Your task to perform on an android device: clear history in the chrome app Image 0: 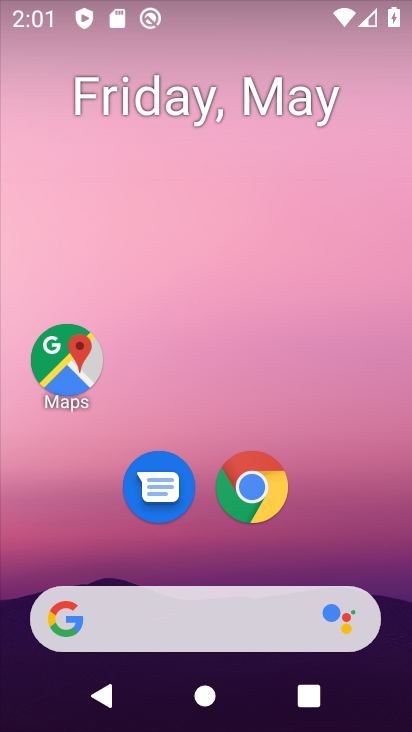
Step 0: click (256, 486)
Your task to perform on an android device: clear history in the chrome app Image 1: 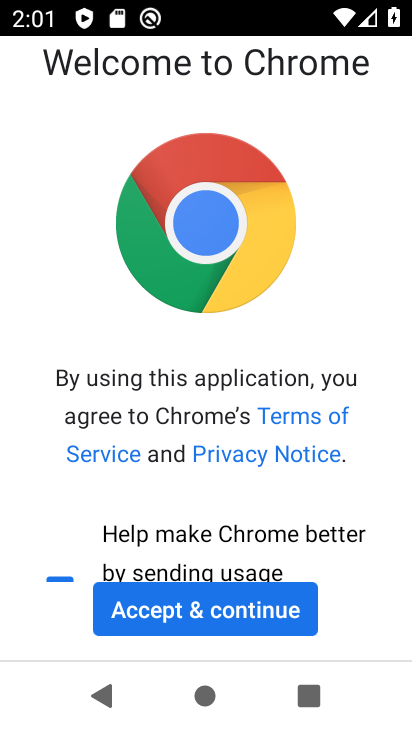
Step 1: click (183, 612)
Your task to perform on an android device: clear history in the chrome app Image 2: 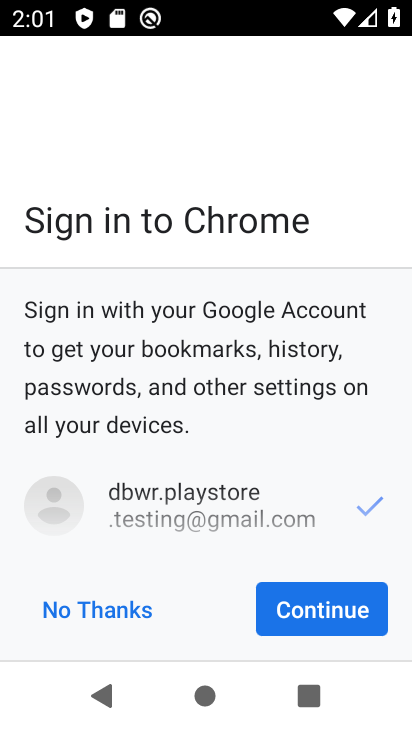
Step 2: click (327, 604)
Your task to perform on an android device: clear history in the chrome app Image 3: 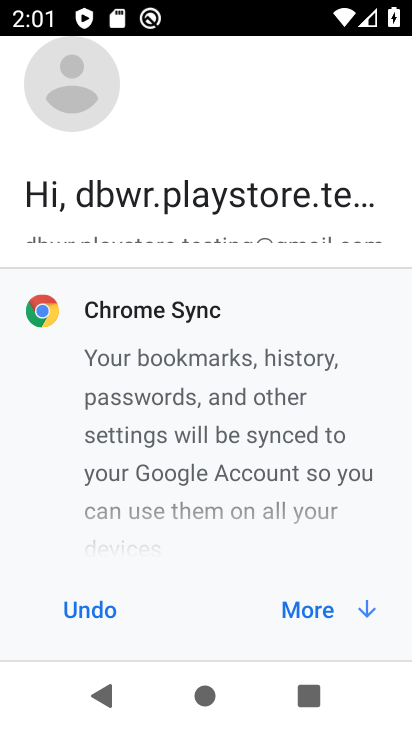
Step 3: click (326, 608)
Your task to perform on an android device: clear history in the chrome app Image 4: 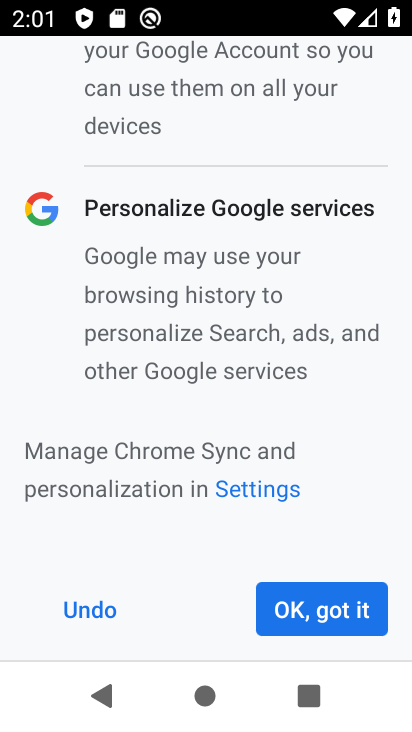
Step 4: click (296, 618)
Your task to perform on an android device: clear history in the chrome app Image 5: 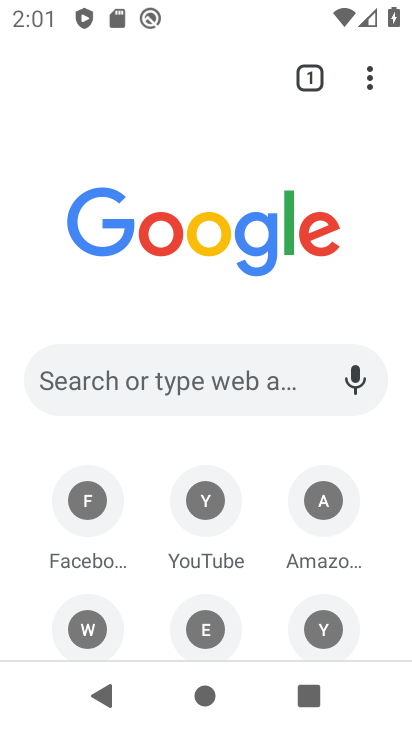
Step 5: task complete